Your task to perform on an android device: Search for usb-c to usb-a on ebay, select the first entry, and add it to the cart. Image 0: 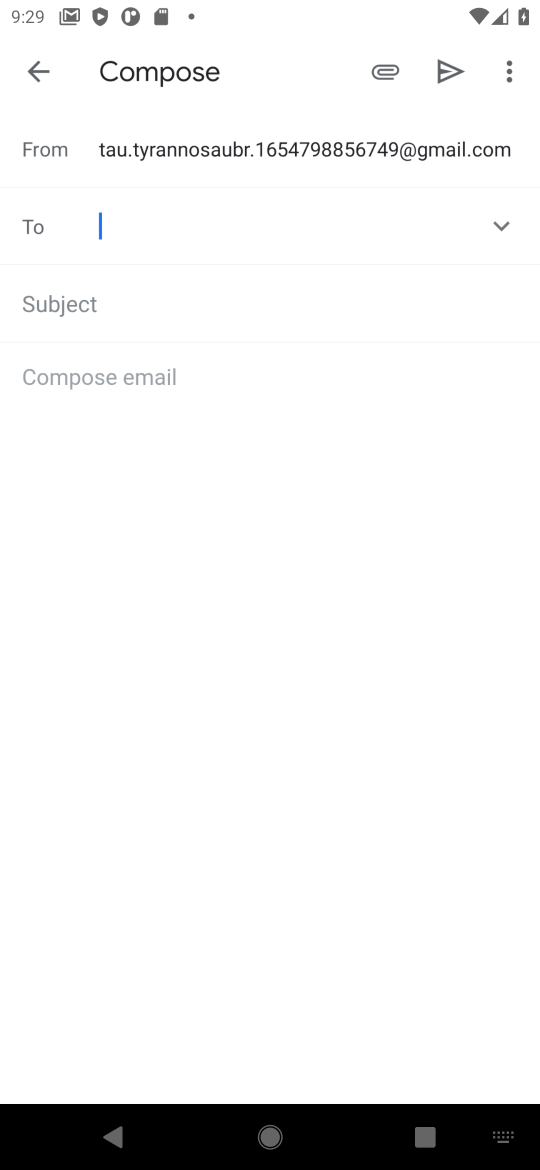
Step 0: click (350, 935)
Your task to perform on an android device: Search for usb-c to usb-a on ebay, select the first entry, and add it to the cart. Image 1: 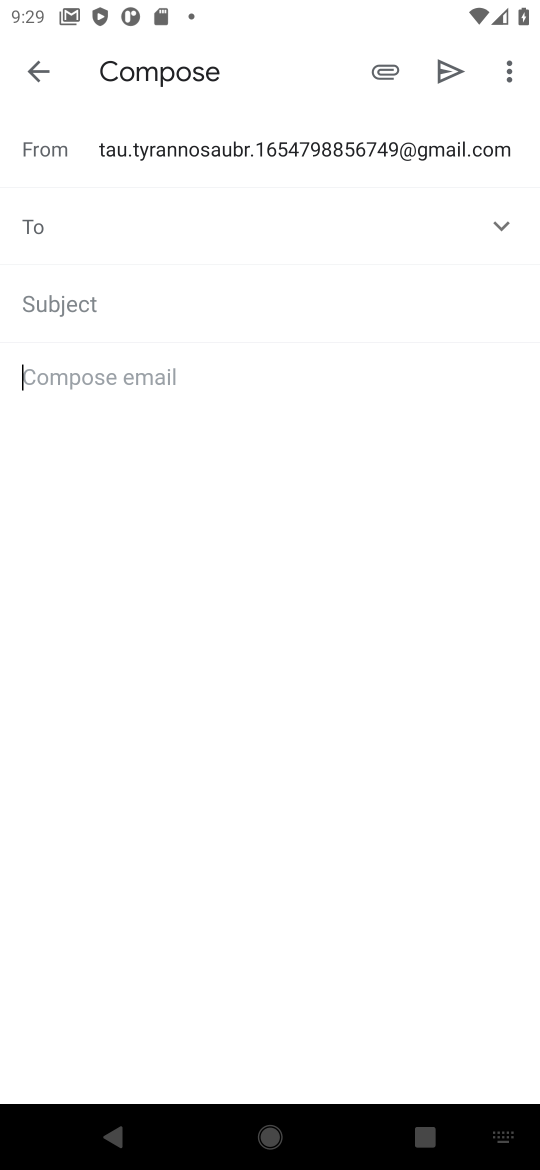
Step 1: press home button
Your task to perform on an android device: Search for usb-c to usb-a on ebay, select the first entry, and add it to the cart. Image 2: 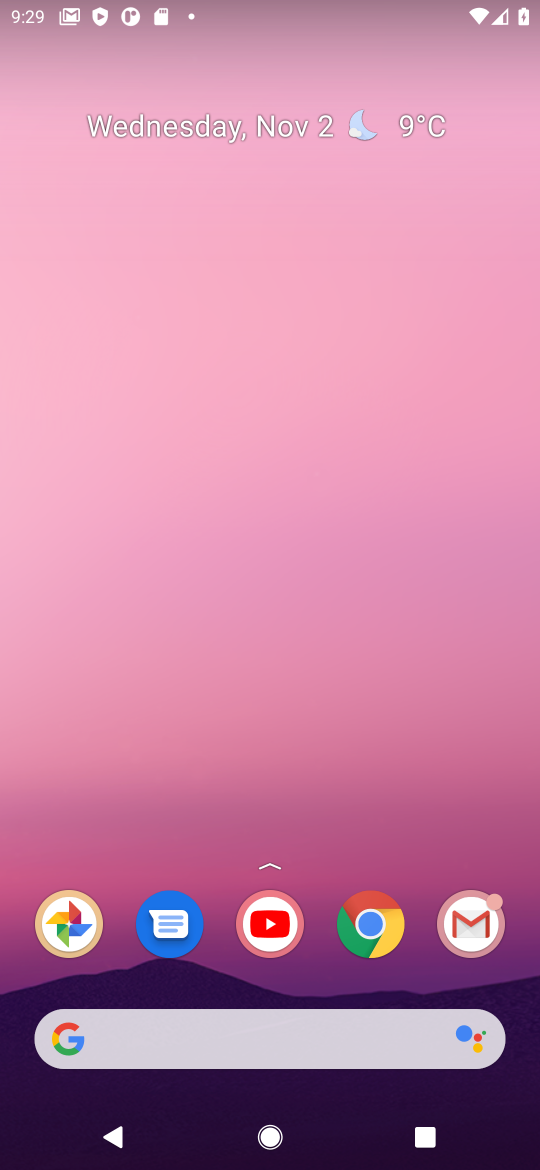
Step 2: click (369, 942)
Your task to perform on an android device: Search for usb-c to usb-a on ebay, select the first entry, and add it to the cart. Image 3: 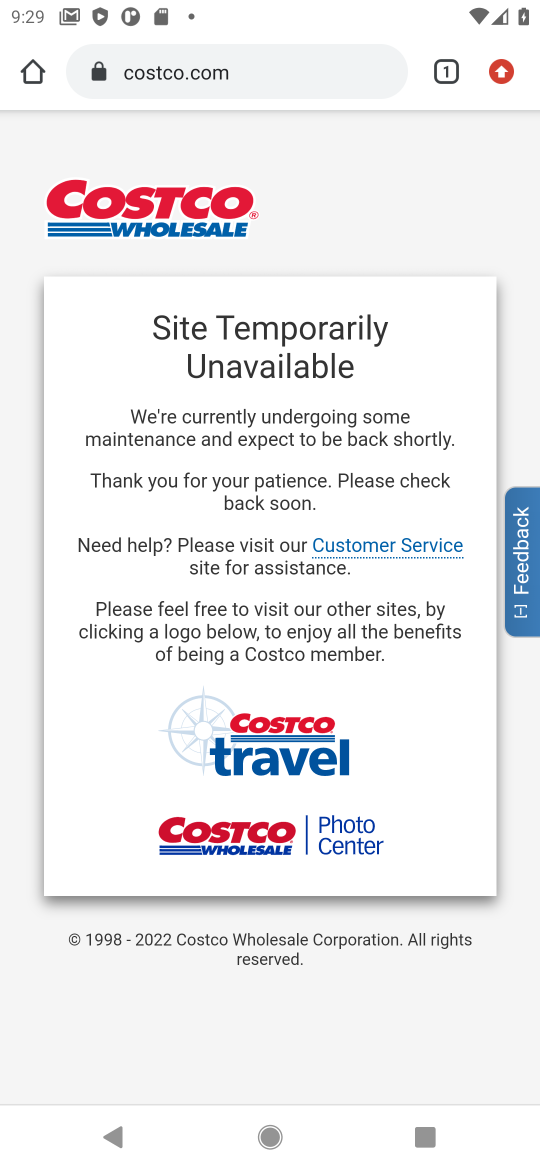
Step 3: click (163, 75)
Your task to perform on an android device: Search for usb-c to usb-a on ebay, select the first entry, and add it to the cart. Image 4: 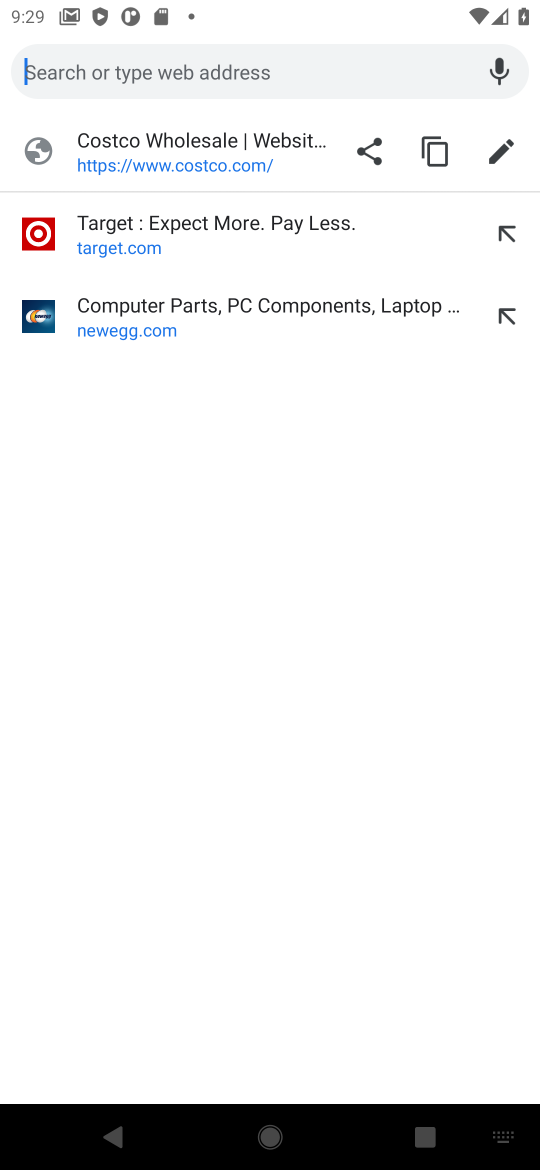
Step 4: type "ebay"
Your task to perform on an android device: Search for usb-c to usb-a on ebay, select the first entry, and add it to the cart. Image 5: 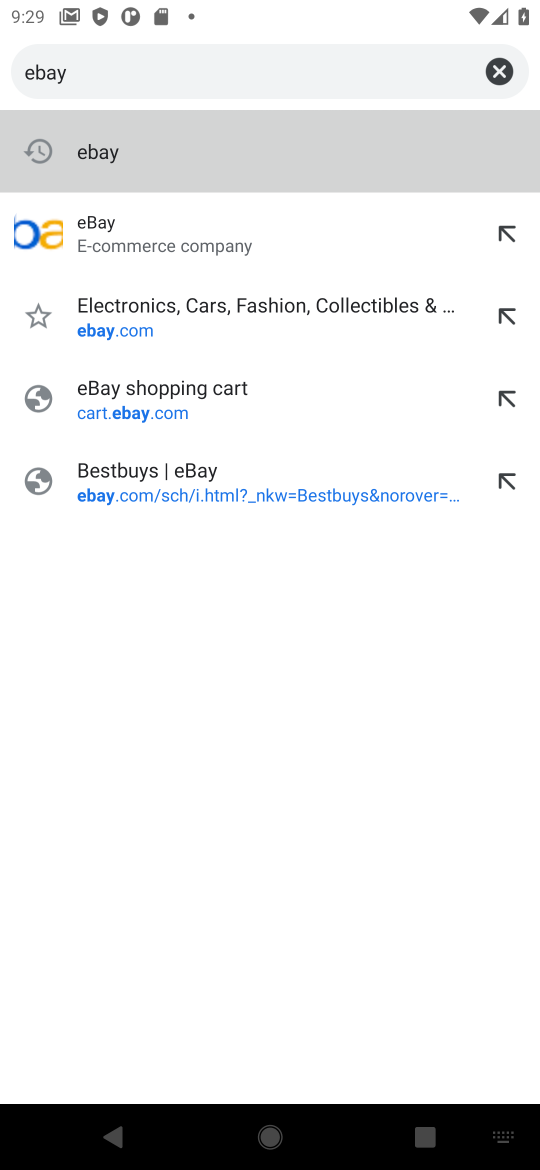
Step 5: click (139, 237)
Your task to perform on an android device: Search for usb-c to usb-a on ebay, select the first entry, and add it to the cart. Image 6: 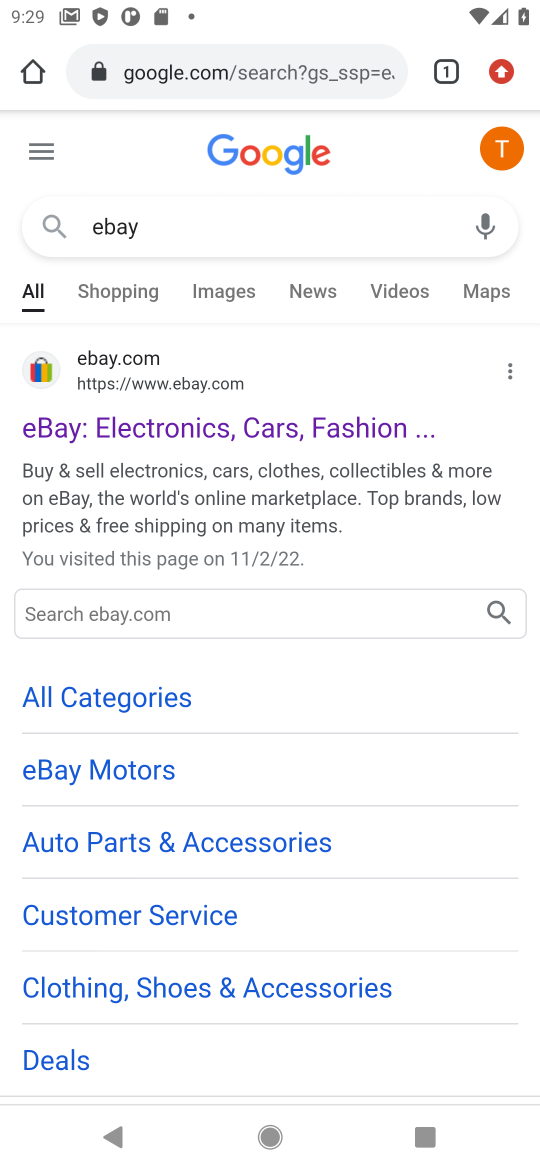
Step 6: click (162, 427)
Your task to perform on an android device: Search for usb-c to usb-a on ebay, select the first entry, and add it to the cart. Image 7: 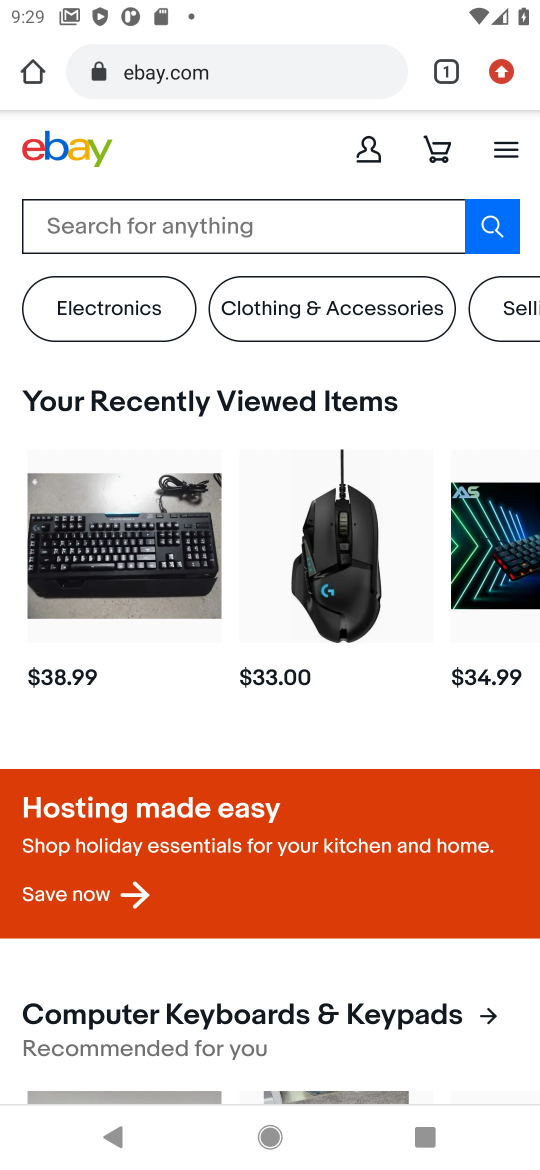
Step 7: click (227, 219)
Your task to perform on an android device: Search for usb-c to usb-a on ebay, select the first entry, and add it to the cart. Image 8: 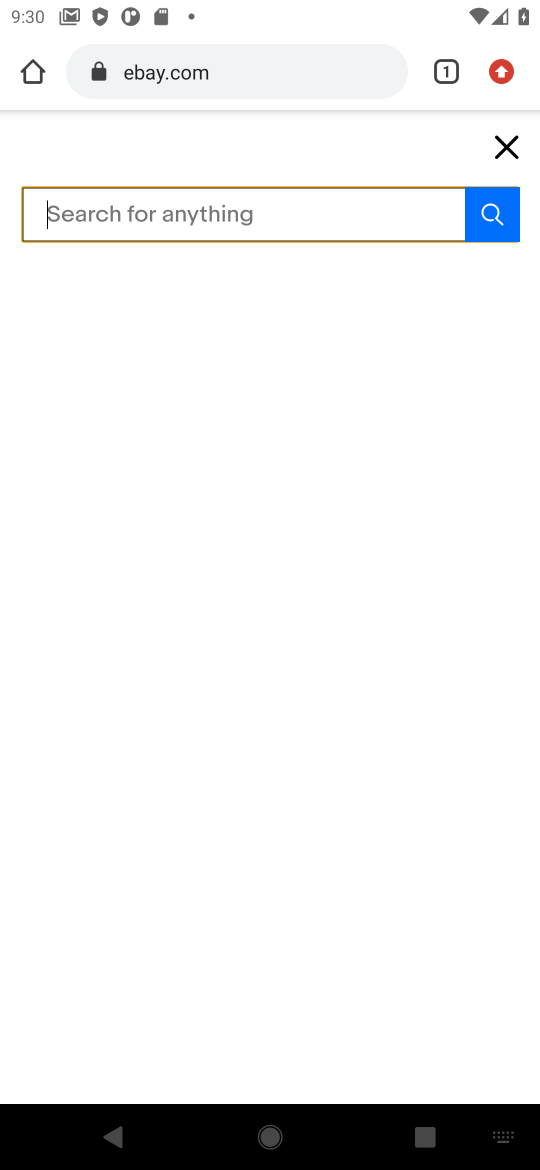
Step 8: type "usb-c to usb - a"
Your task to perform on an android device: Search for usb-c to usb-a on ebay, select the first entry, and add it to the cart. Image 9: 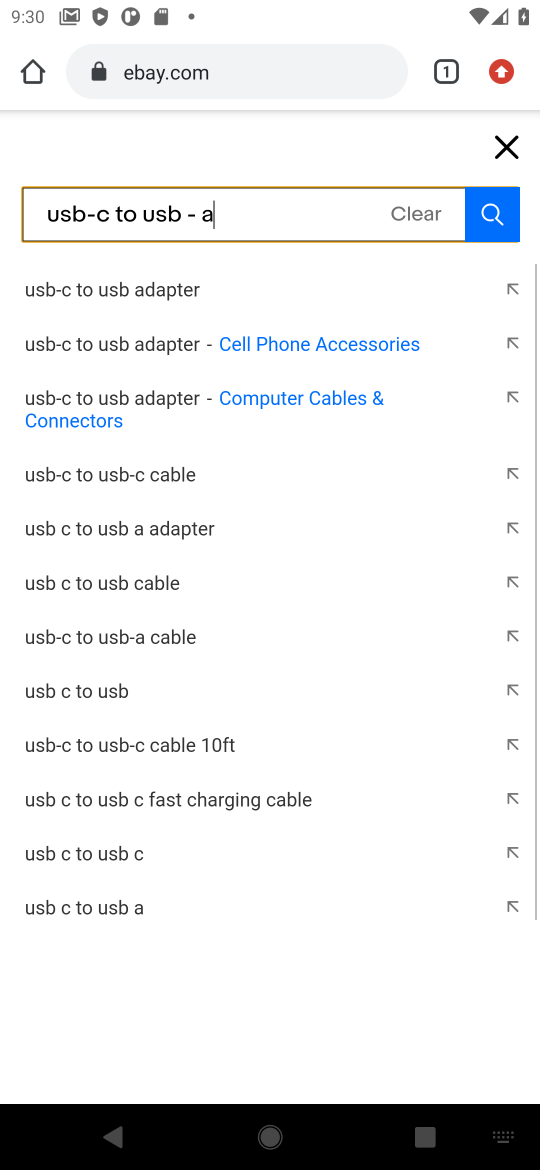
Step 9: type ""
Your task to perform on an android device: Search for usb-c to usb-a on ebay, select the first entry, and add it to the cart. Image 10: 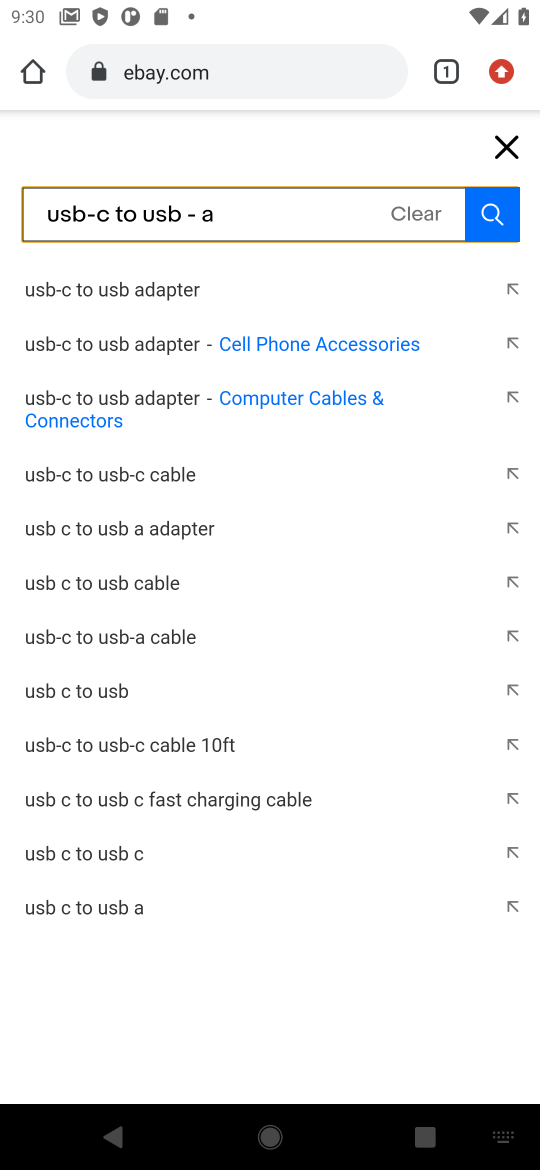
Step 10: click (131, 635)
Your task to perform on an android device: Search for usb-c to usb-a on ebay, select the first entry, and add it to the cart. Image 11: 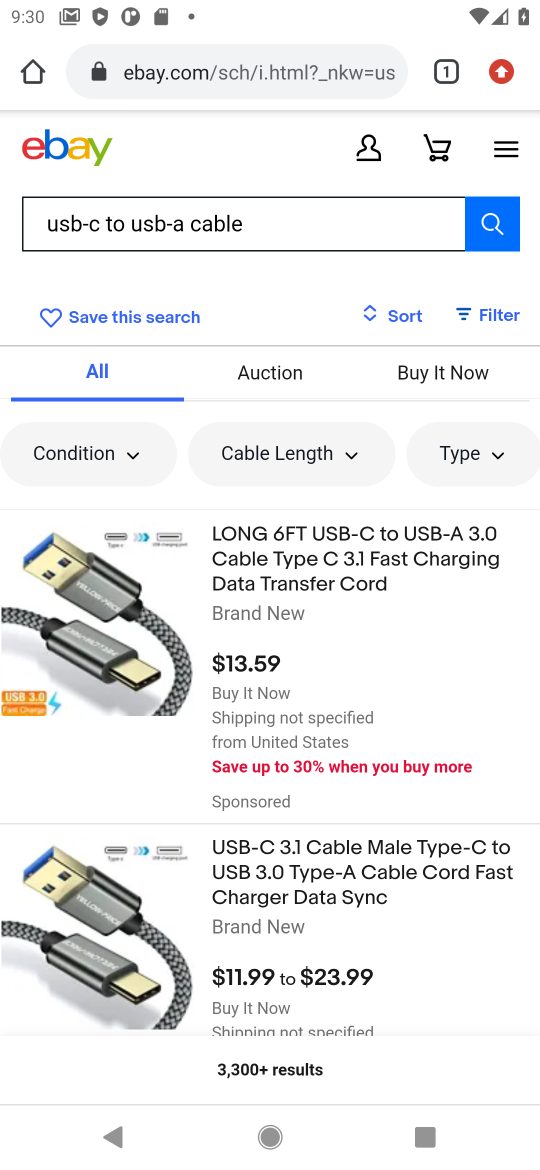
Step 11: click (73, 585)
Your task to perform on an android device: Search for usb-c to usb-a on ebay, select the first entry, and add it to the cart. Image 12: 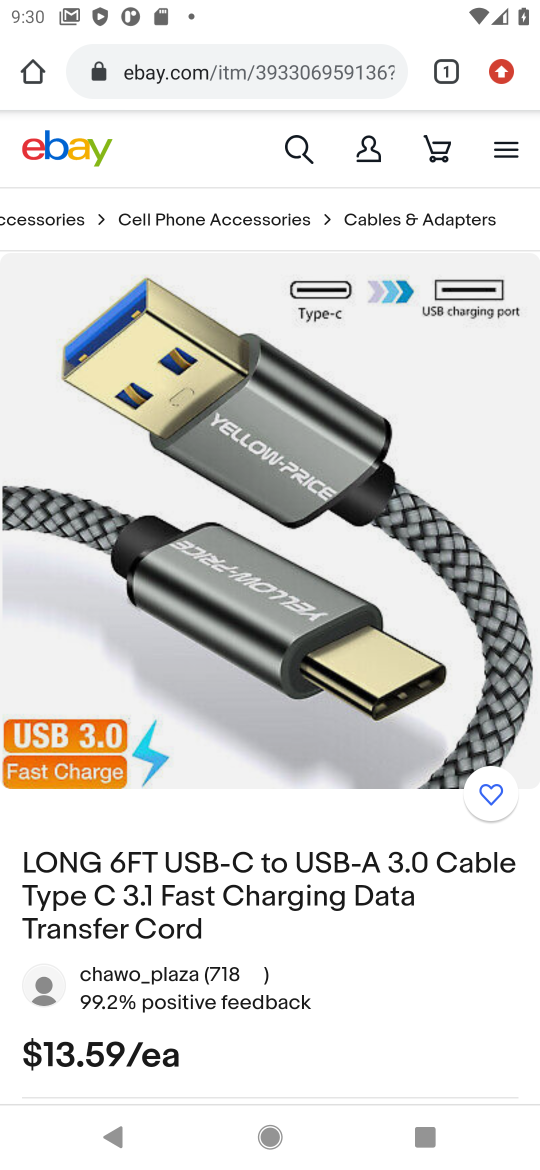
Step 12: drag from (392, 978) to (446, 441)
Your task to perform on an android device: Search for usb-c to usb-a on ebay, select the first entry, and add it to the cart. Image 13: 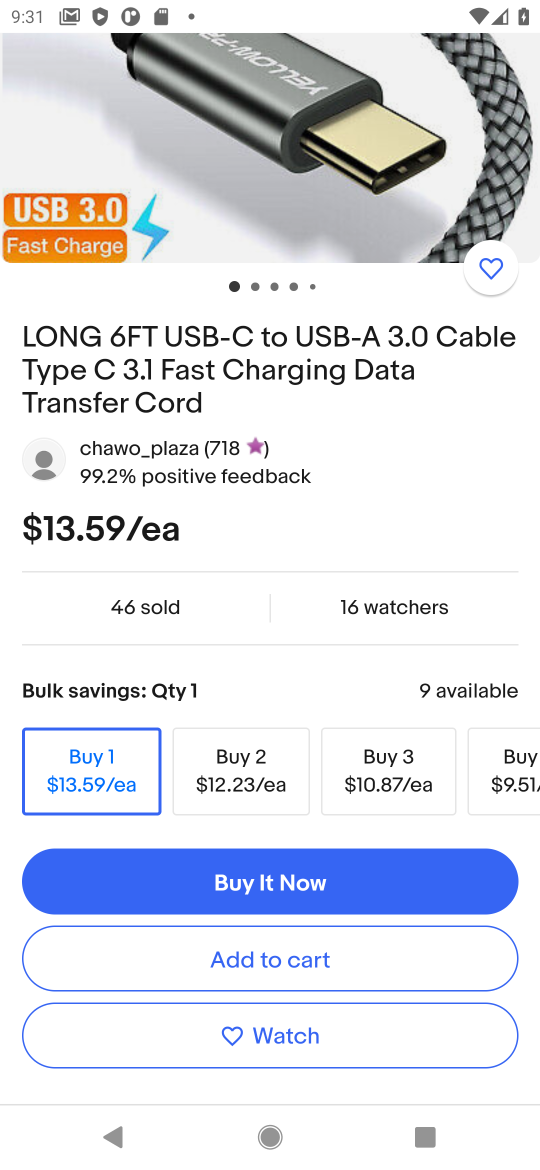
Step 13: click (308, 956)
Your task to perform on an android device: Search for usb-c to usb-a on ebay, select the first entry, and add it to the cart. Image 14: 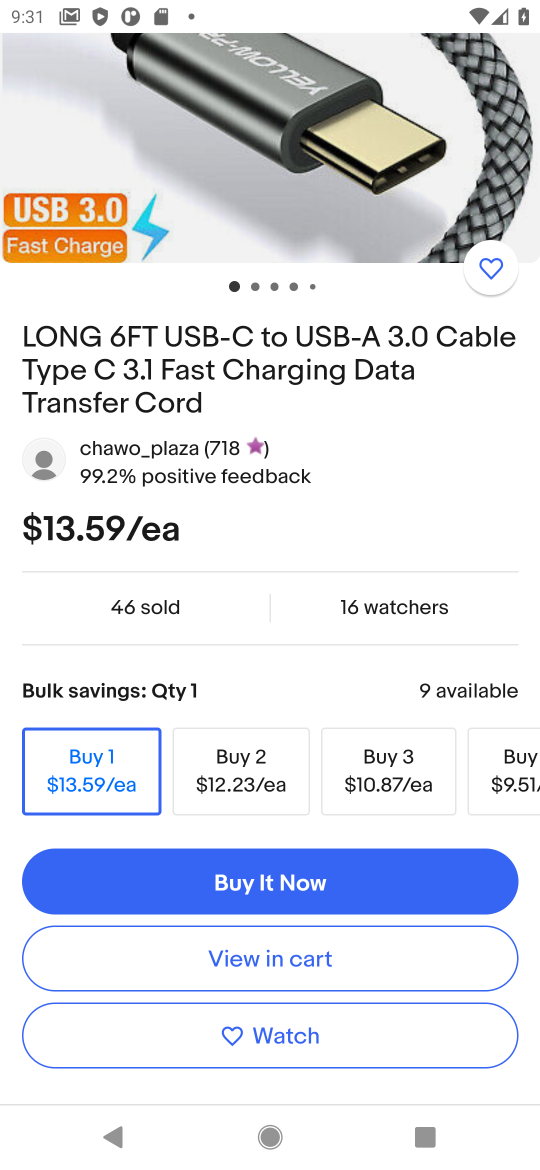
Step 14: click (308, 956)
Your task to perform on an android device: Search for usb-c to usb-a on ebay, select the first entry, and add it to the cart. Image 15: 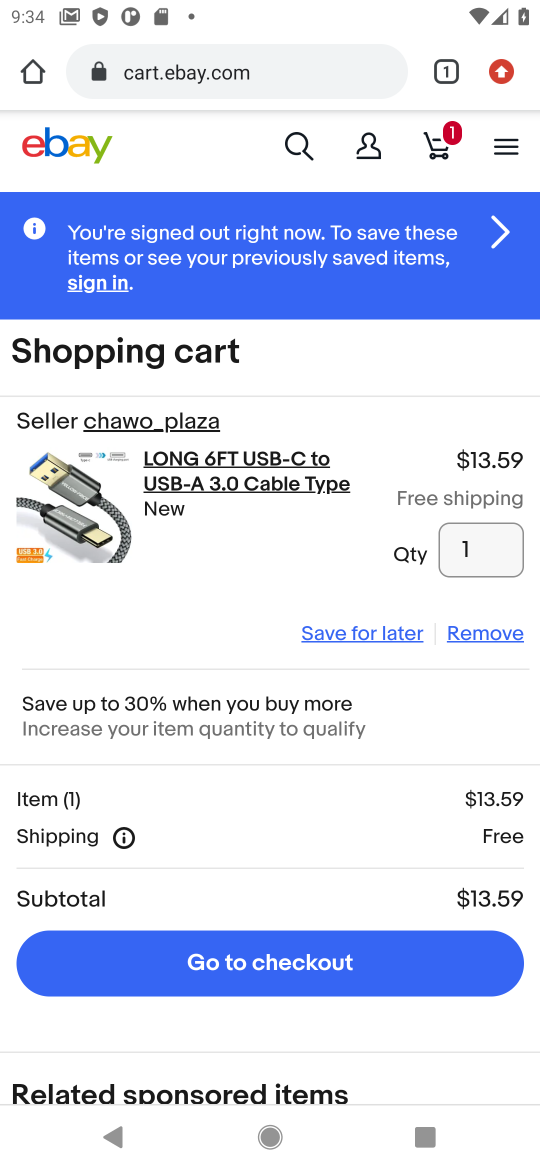
Step 15: task complete